Your task to perform on an android device: move an email to a new category in the gmail app Image 0: 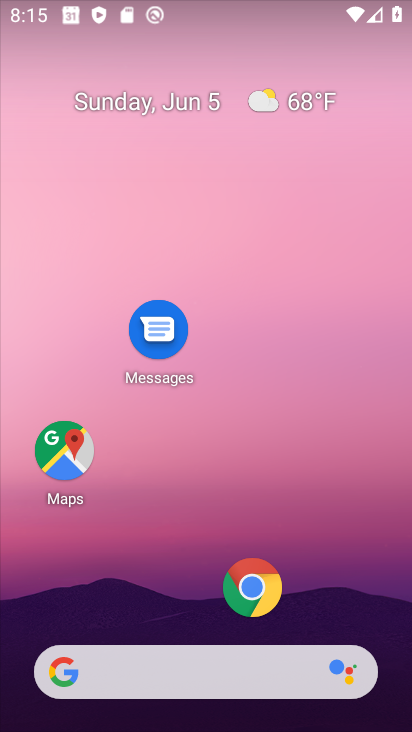
Step 0: drag from (220, 634) to (239, 345)
Your task to perform on an android device: move an email to a new category in the gmail app Image 1: 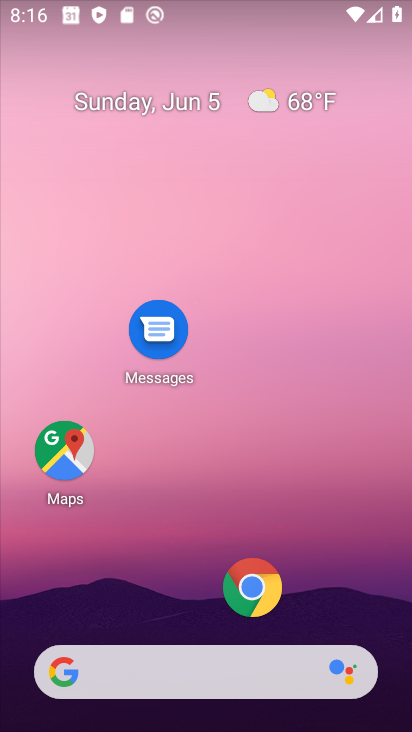
Step 1: drag from (207, 600) to (250, 35)
Your task to perform on an android device: move an email to a new category in the gmail app Image 2: 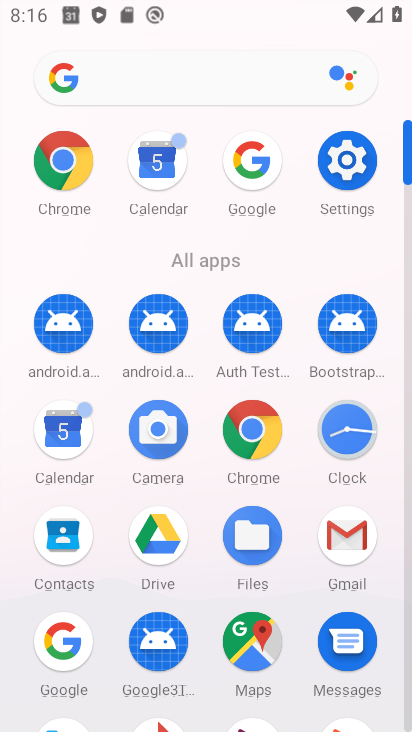
Step 2: click (361, 553)
Your task to perform on an android device: move an email to a new category in the gmail app Image 3: 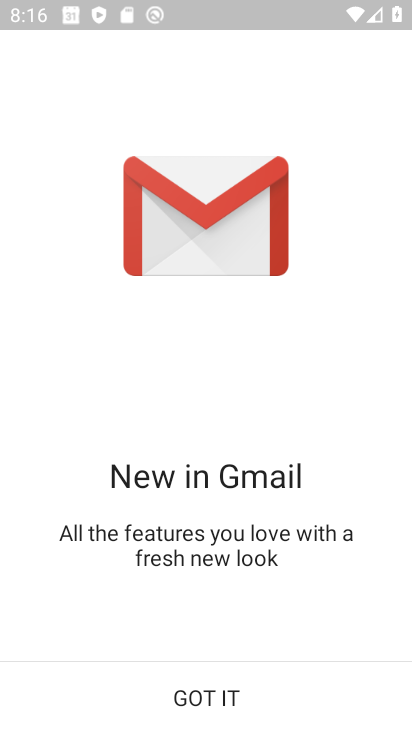
Step 3: click (245, 703)
Your task to perform on an android device: move an email to a new category in the gmail app Image 4: 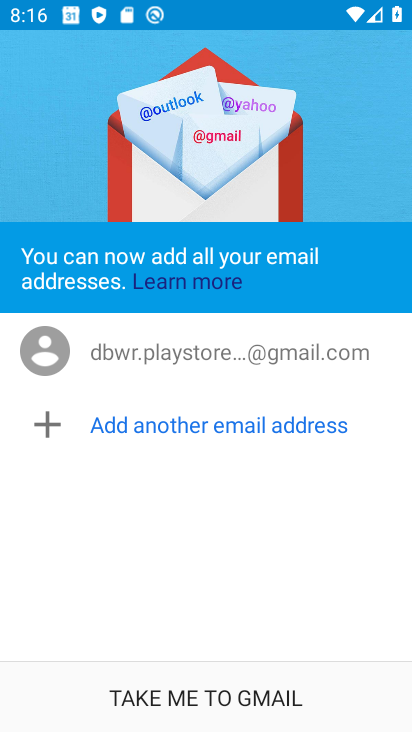
Step 4: click (245, 698)
Your task to perform on an android device: move an email to a new category in the gmail app Image 5: 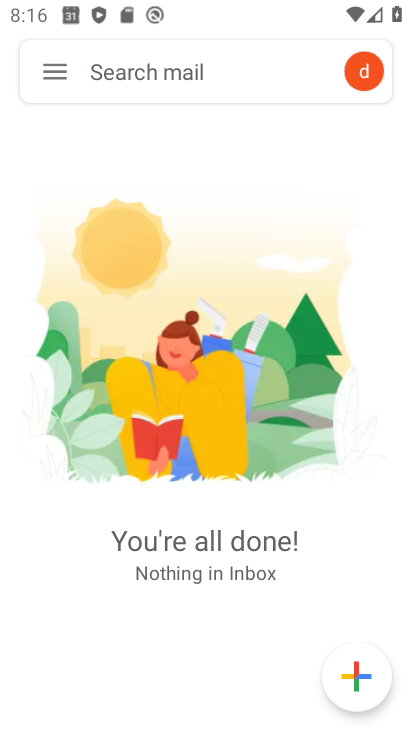
Step 5: click (60, 70)
Your task to perform on an android device: move an email to a new category in the gmail app Image 6: 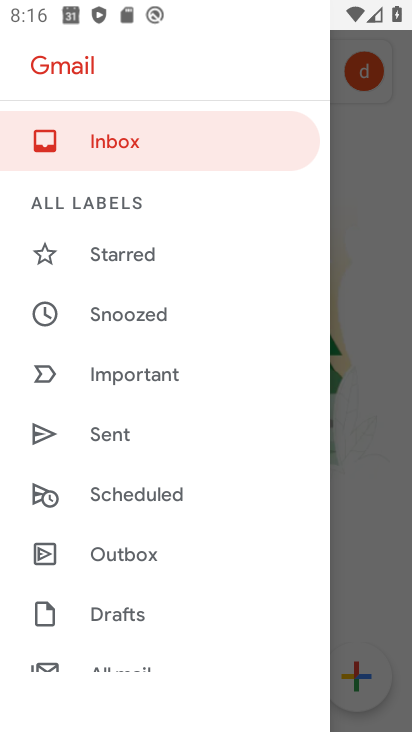
Step 6: drag from (117, 548) to (175, 254)
Your task to perform on an android device: move an email to a new category in the gmail app Image 7: 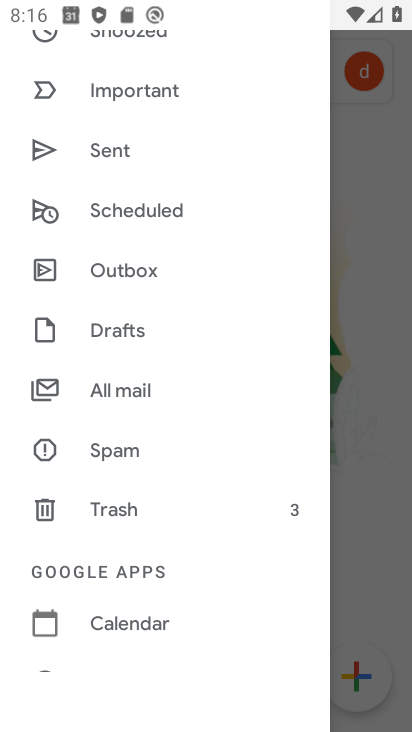
Step 7: click (142, 410)
Your task to perform on an android device: move an email to a new category in the gmail app Image 8: 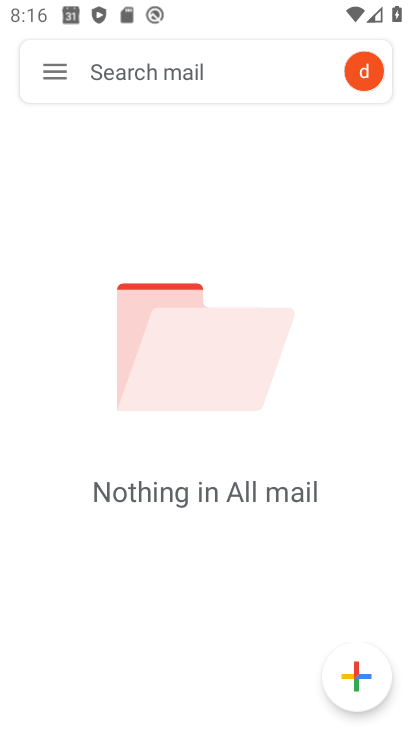
Step 8: task complete